Your task to perform on an android device: change the clock display to show seconds Image 0: 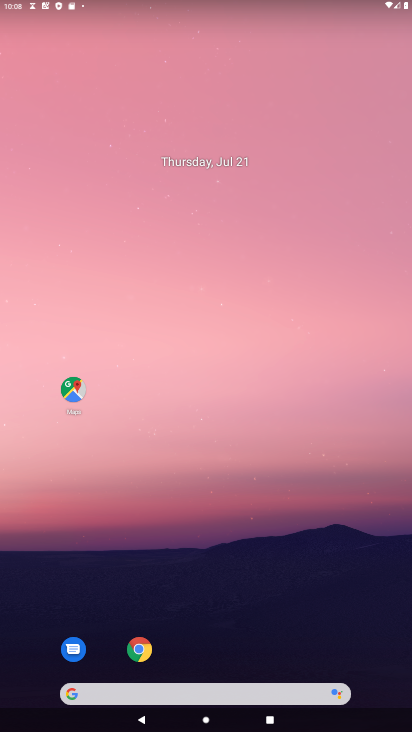
Step 0: drag from (304, 598) to (249, 169)
Your task to perform on an android device: change the clock display to show seconds Image 1: 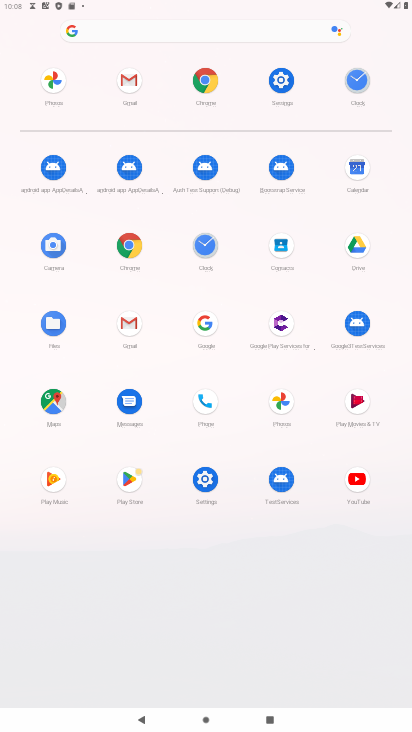
Step 1: click (207, 246)
Your task to perform on an android device: change the clock display to show seconds Image 2: 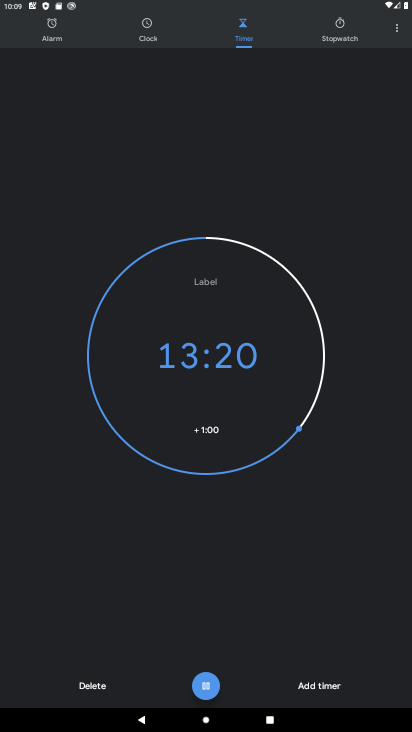
Step 2: click (400, 33)
Your task to perform on an android device: change the clock display to show seconds Image 3: 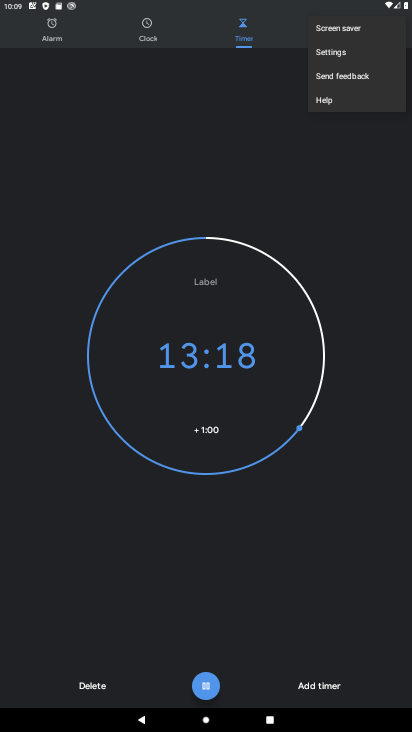
Step 3: click (337, 61)
Your task to perform on an android device: change the clock display to show seconds Image 4: 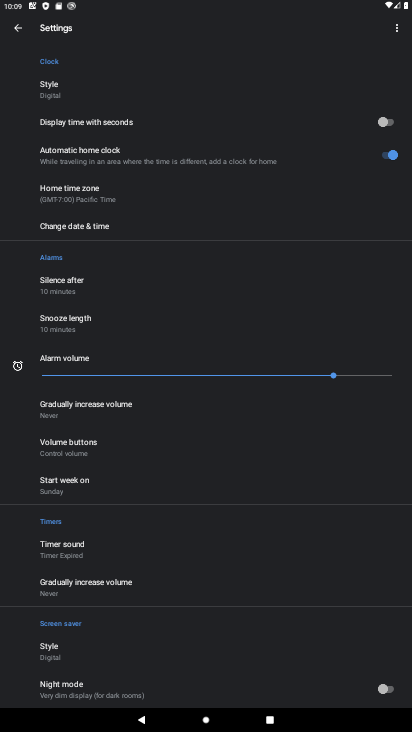
Step 4: click (138, 120)
Your task to perform on an android device: change the clock display to show seconds Image 5: 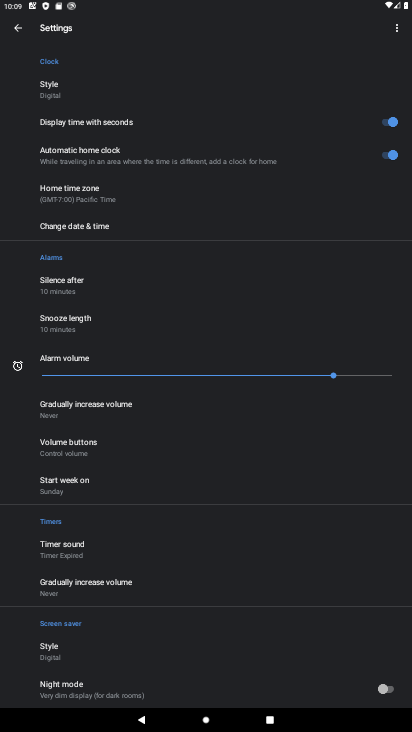
Step 5: task complete